Your task to perform on an android device: Go to Google maps Image 0: 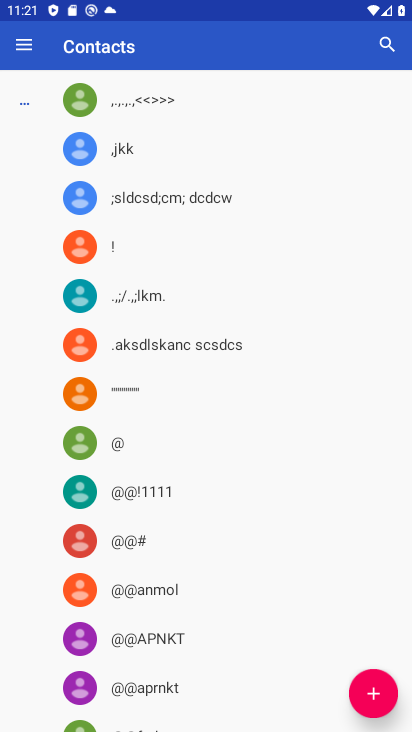
Step 0: press home button
Your task to perform on an android device: Go to Google maps Image 1: 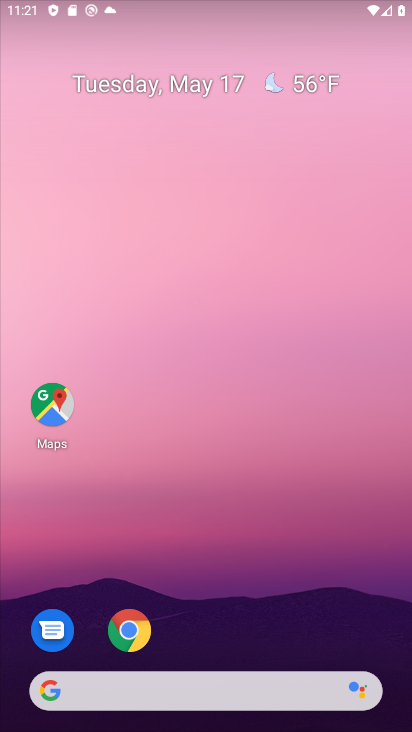
Step 1: drag from (358, 631) to (299, 231)
Your task to perform on an android device: Go to Google maps Image 2: 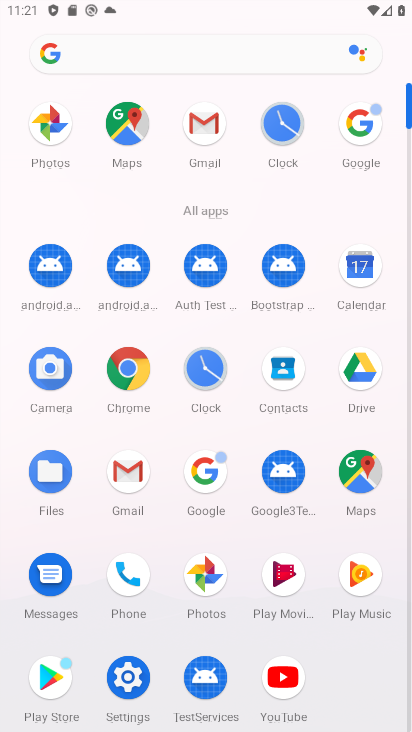
Step 2: click (352, 468)
Your task to perform on an android device: Go to Google maps Image 3: 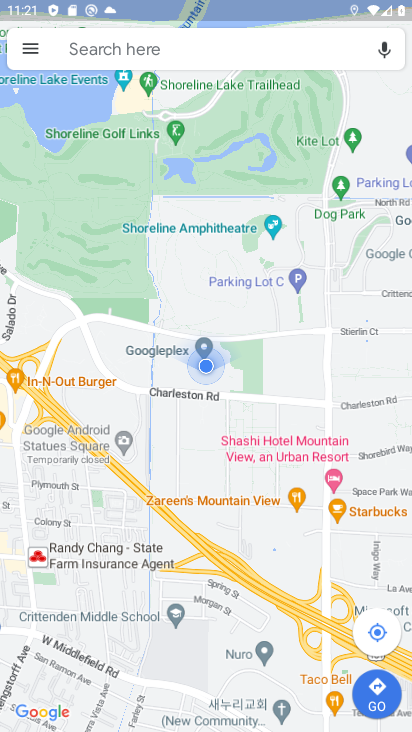
Step 3: task complete